Your task to perform on an android device: add a contact Image 0: 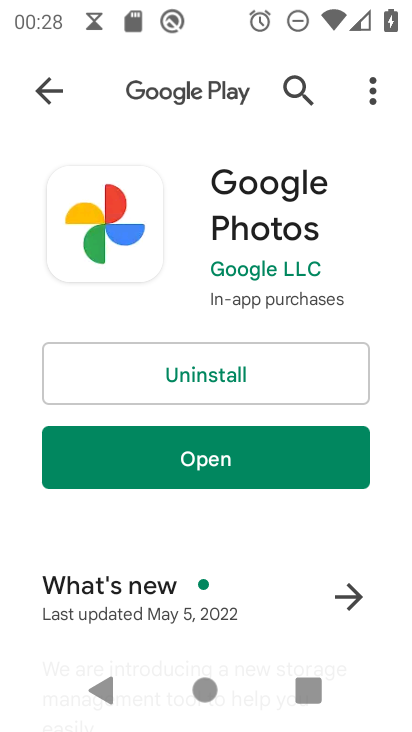
Step 0: press home button
Your task to perform on an android device: add a contact Image 1: 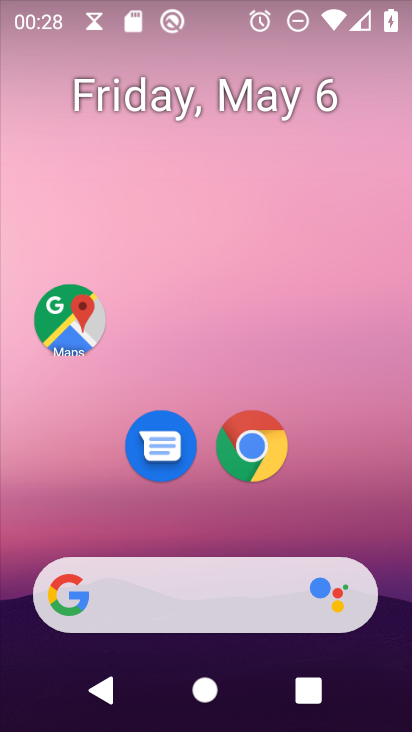
Step 1: drag from (306, 458) to (317, 117)
Your task to perform on an android device: add a contact Image 2: 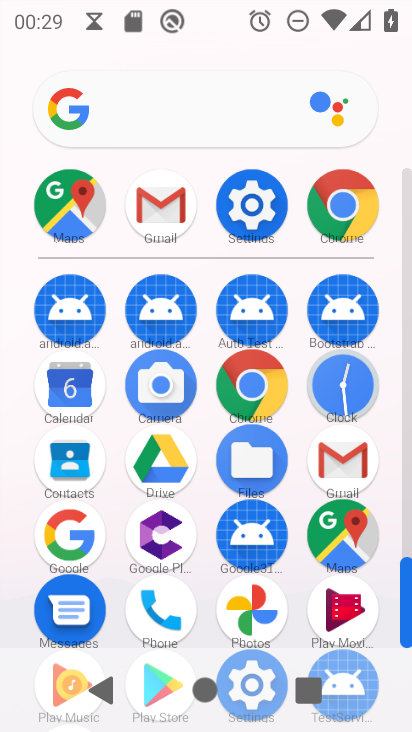
Step 2: click (174, 610)
Your task to perform on an android device: add a contact Image 3: 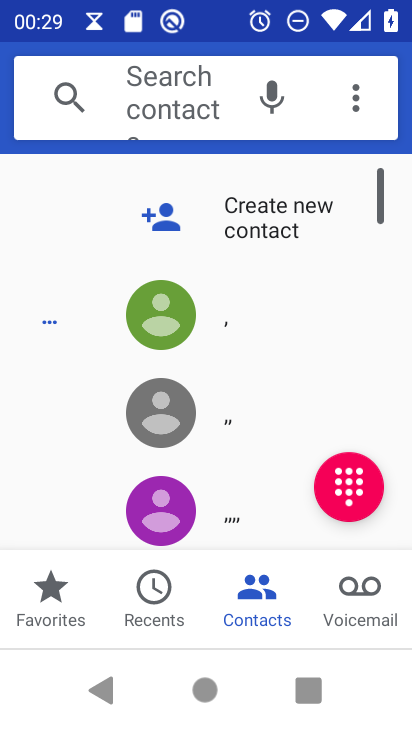
Step 3: click (273, 233)
Your task to perform on an android device: add a contact Image 4: 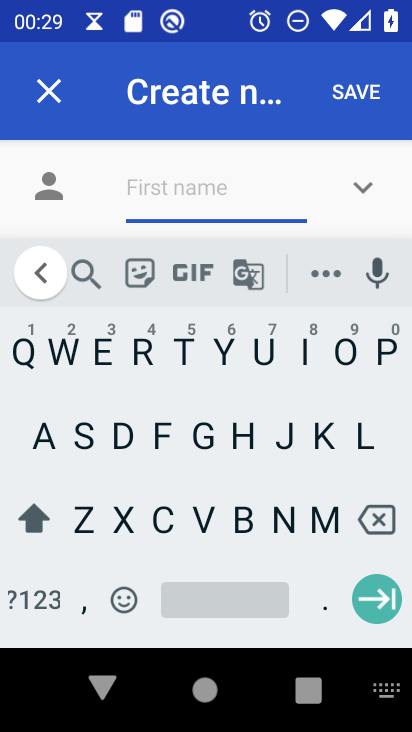
Step 4: click (143, 356)
Your task to perform on an android device: add a contact Image 5: 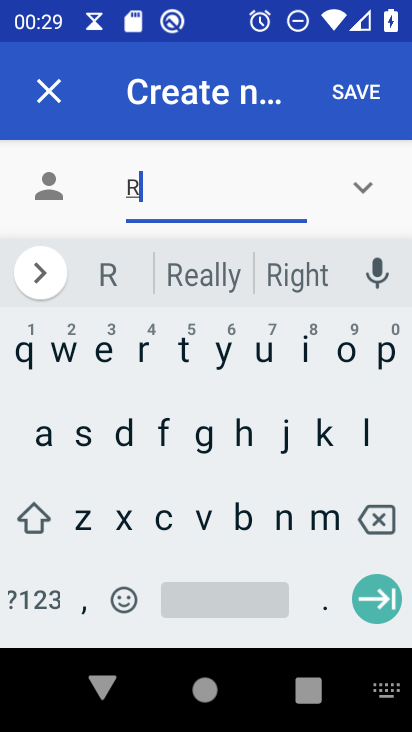
Step 5: click (351, 356)
Your task to perform on an android device: add a contact Image 6: 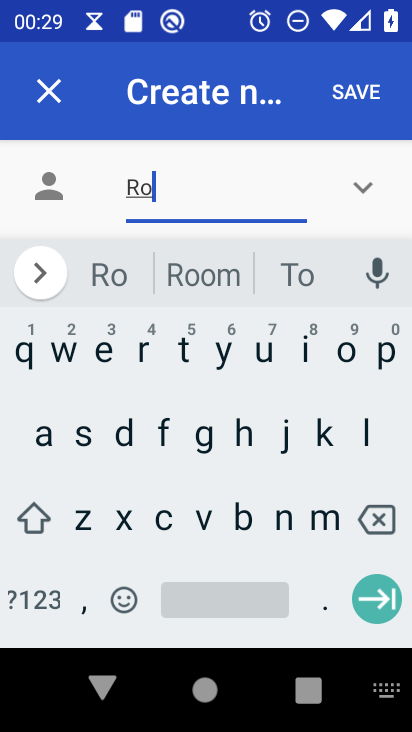
Step 6: click (217, 356)
Your task to perform on an android device: add a contact Image 7: 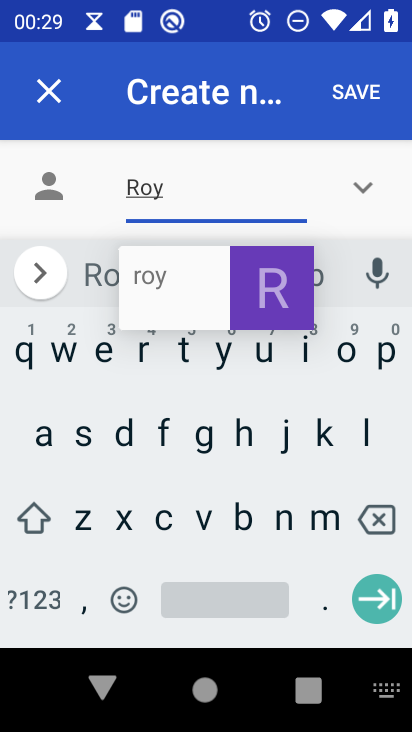
Step 7: drag from (255, 222) to (285, 101)
Your task to perform on an android device: add a contact Image 8: 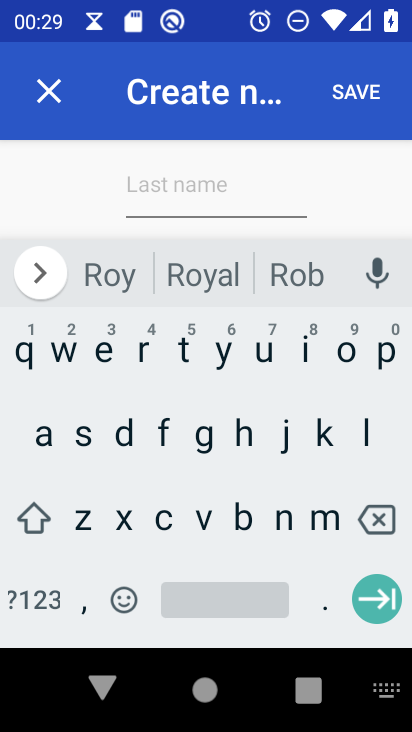
Step 8: drag from (193, 198) to (218, 135)
Your task to perform on an android device: add a contact Image 9: 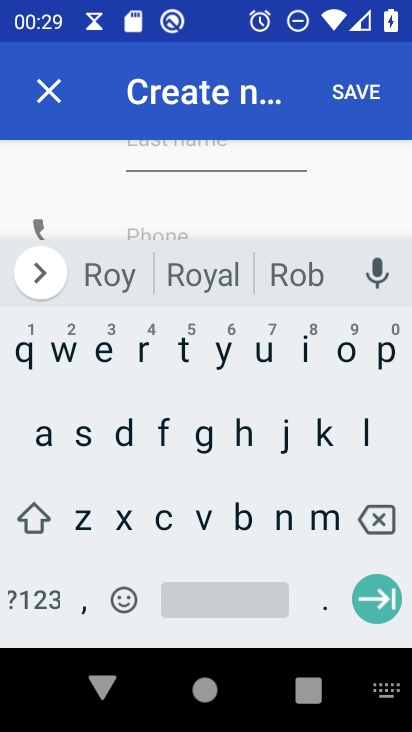
Step 9: click (148, 228)
Your task to perform on an android device: add a contact Image 10: 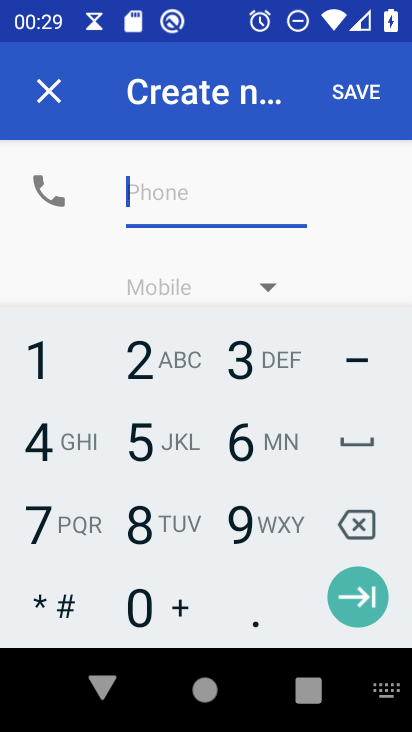
Step 10: click (49, 379)
Your task to perform on an android device: add a contact Image 11: 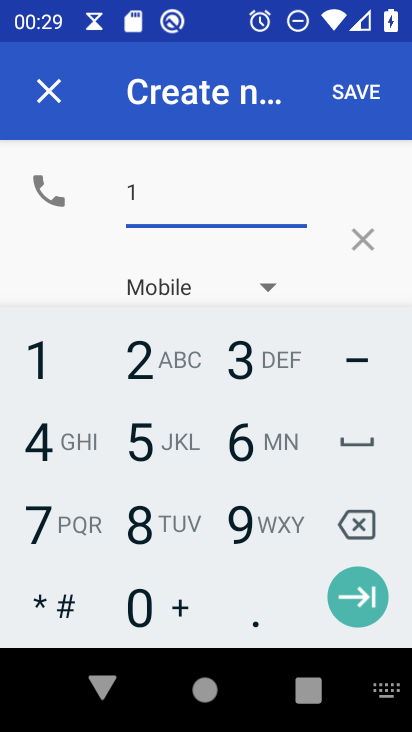
Step 11: click (64, 449)
Your task to perform on an android device: add a contact Image 12: 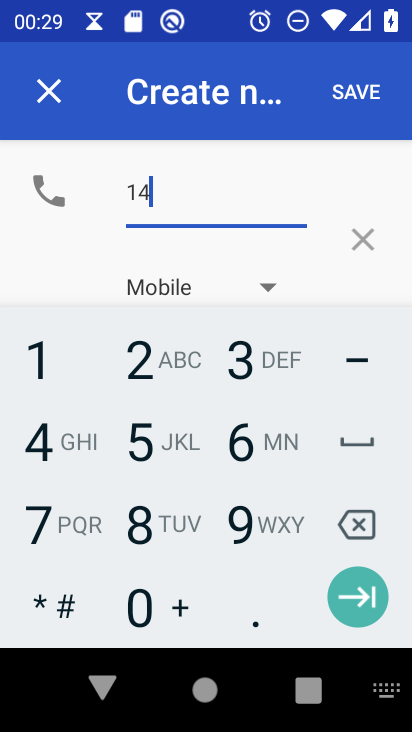
Step 12: click (72, 511)
Your task to perform on an android device: add a contact Image 13: 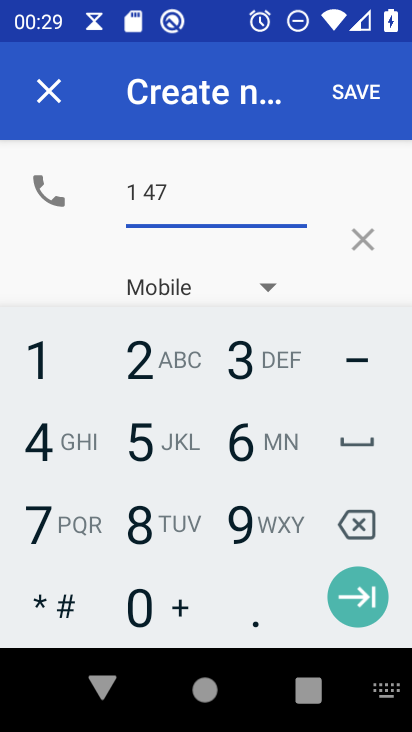
Step 13: click (165, 447)
Your task to perform on an android device: add a contact Image 14: 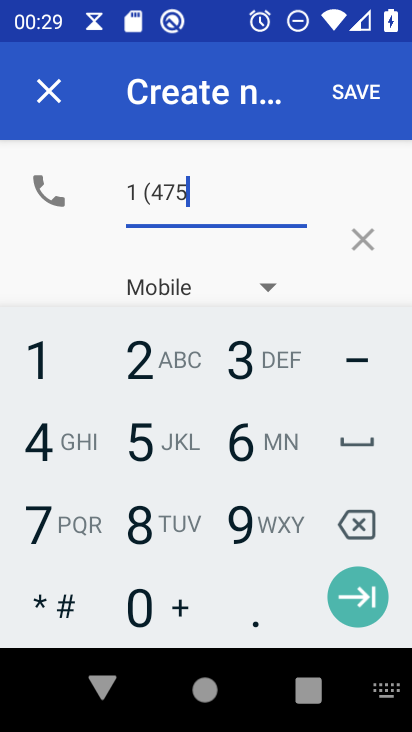
Step 14: click (150, 498)
Your task to perform on an android device: add a contact Image 15: 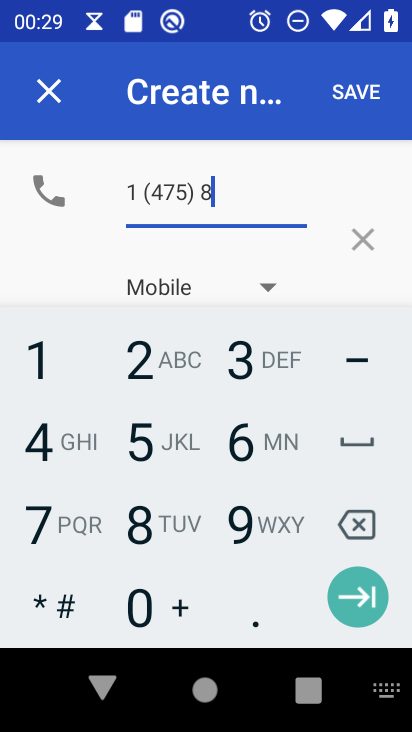
Step 15: click (245, 430)
Your task to perform on an android device: add a contact Image 16: 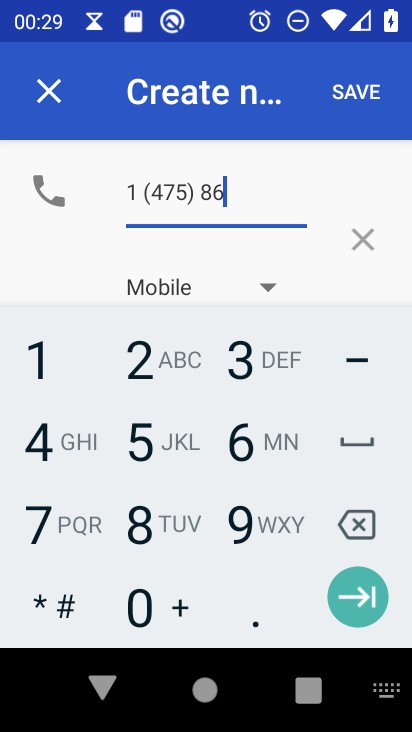
Step 16: click (139, 456)
Your task to perform on an android device: add a contact Image 17: 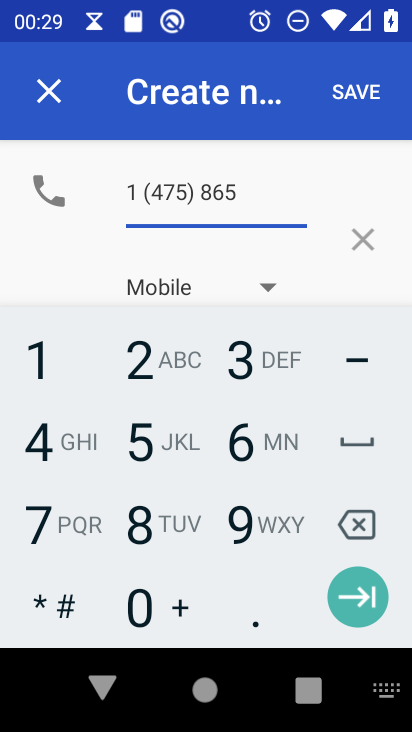
Step 17: click (363, 77)
Your task to perform on an android device: add a contact Image 18: 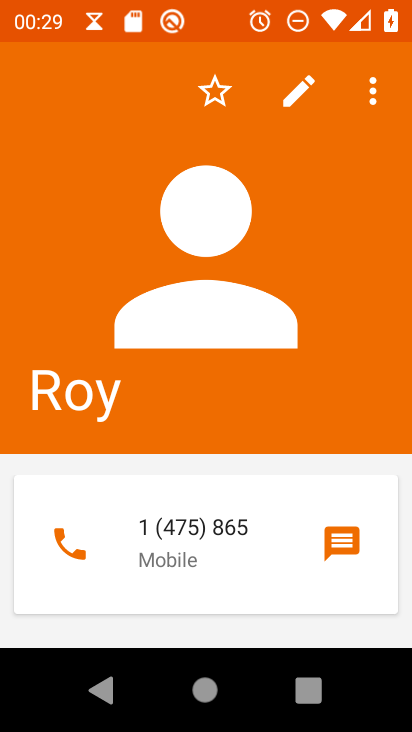
Step 18: task complete